Your task to perform on an android device: Open sound settings Image 0: 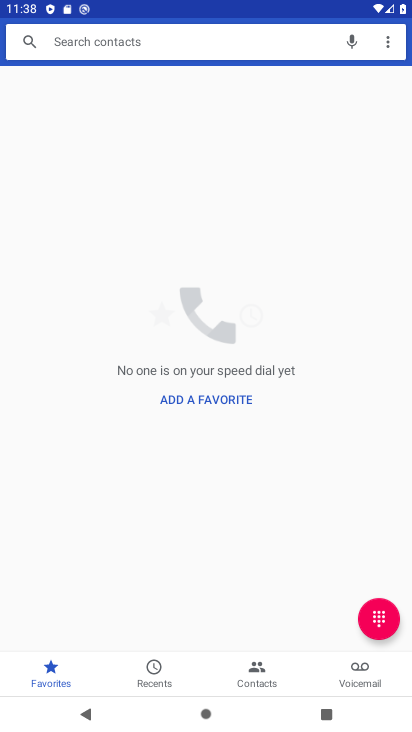
Step 0: press back button
Your task to perform on an android device: Open sound settings Image 1: 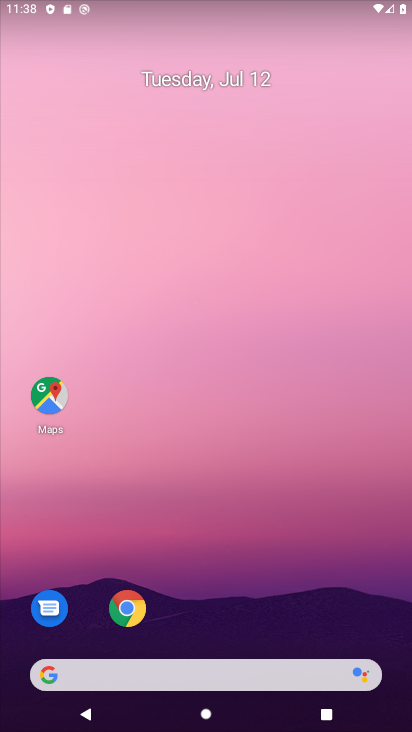
Step 1: drag from (247, 634) to (338, 41)
Your task to perform on an android device: Open sound settings Image 2: 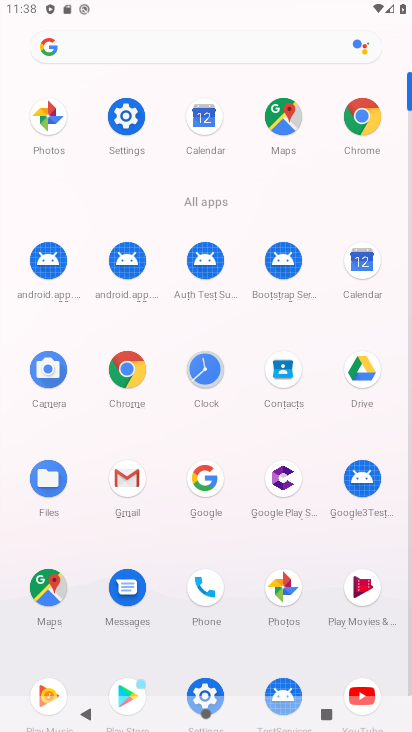
Step 2: click (131, 123)
Your task to perform on an android device: Open sound settings Image 3: 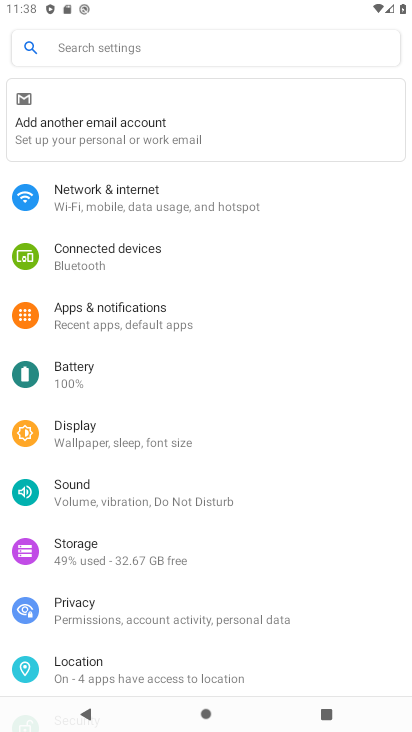
Step 3: click (72, 500)
Your task to perform on an android device: Open sound settings Image 4: 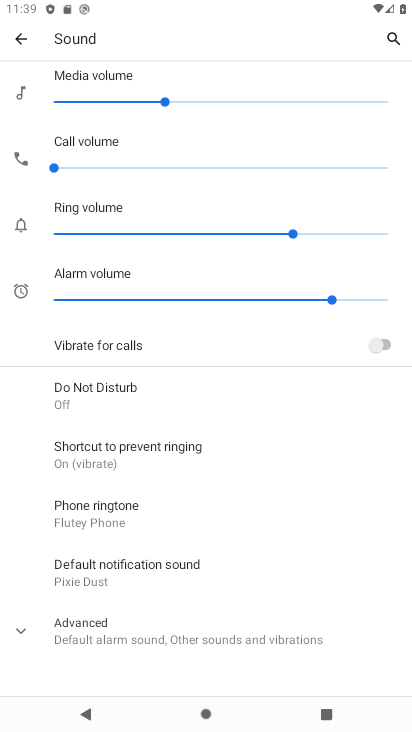
Step 4: task complete